Your task to perform on an android device: add a contact in the contacts app Image 0: 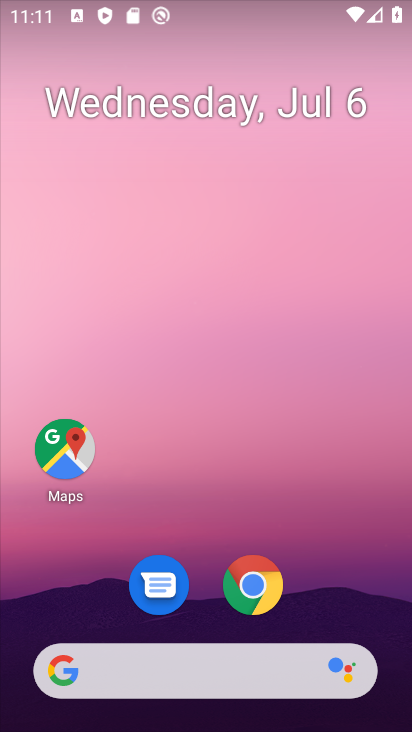
Step 0: drag from (221, 486) to (281, 27)
Your task to perform on an android device: add a contact in the contacts app Image 1: 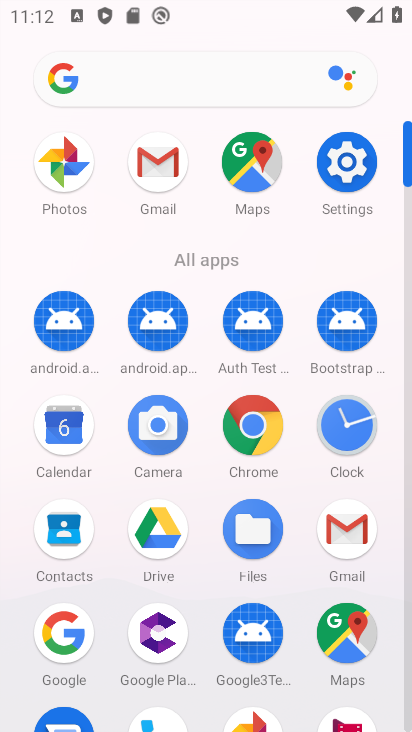
Step 1: click (53, 517)
Your task to perform on an android device: add a contact in the contacts app Image 2: 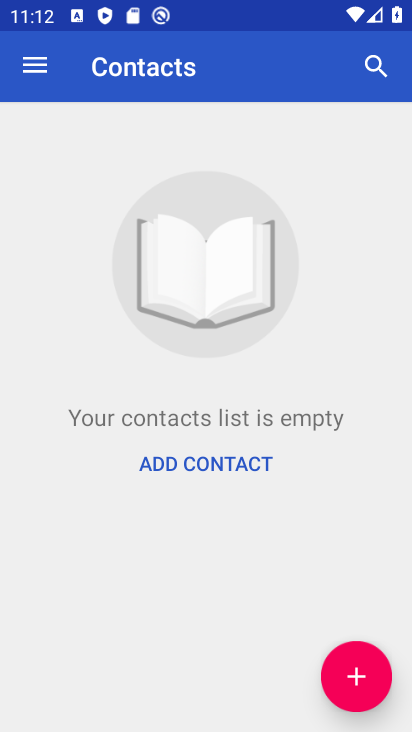
Step 2: click (357, 686)
Your task to perform on an android device: add a contact in the contacts app Image 3: 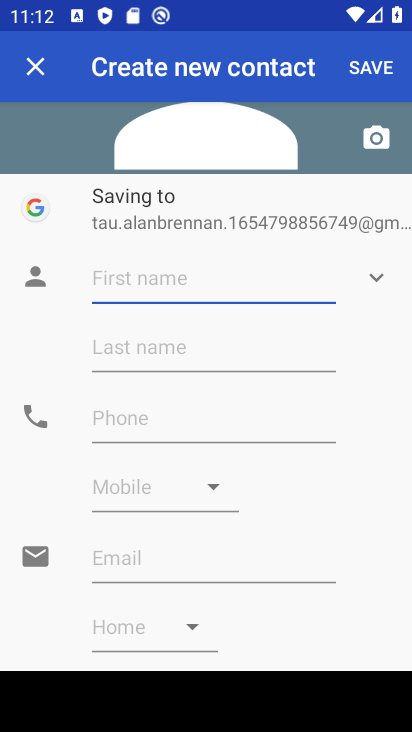
Step 3: type "Shri Ram"
Your task to perform on an android device: add a contact in the contacts app Image 4: 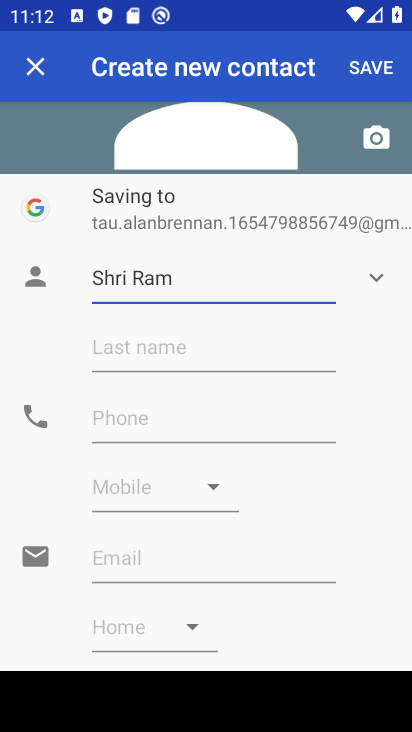
Step 4: click (185, 431)
Your task to perform on an android device: add a contact in the contacts app Image 5: 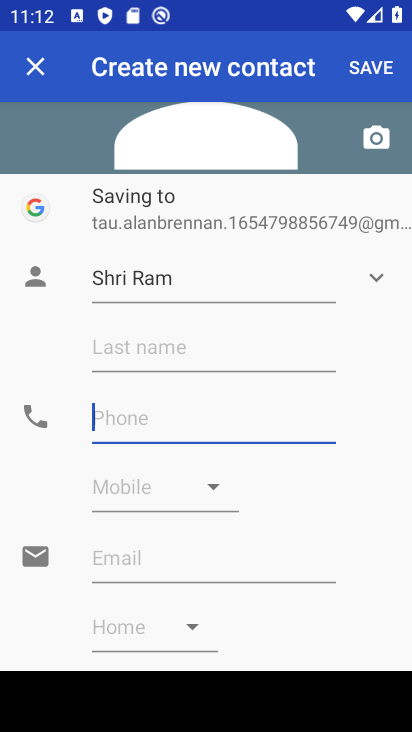
Step 5: type "99999999999"
Your task to perform on an android device: add a contact in the contacts app Image 6: 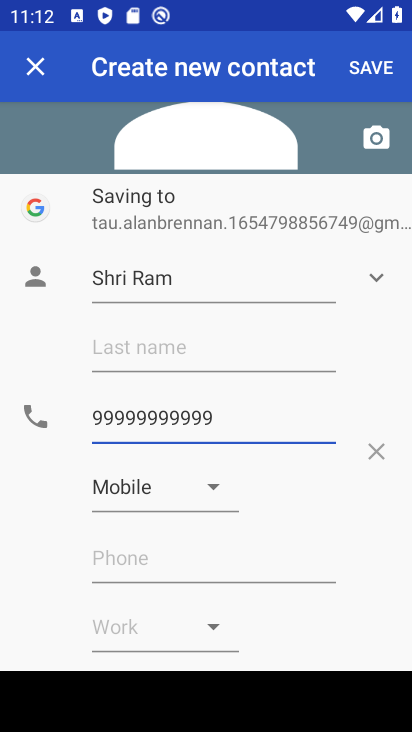
Step 6: click (376, 62)
Your task to perform on an android device: add a contact in the contacts app Image 7: 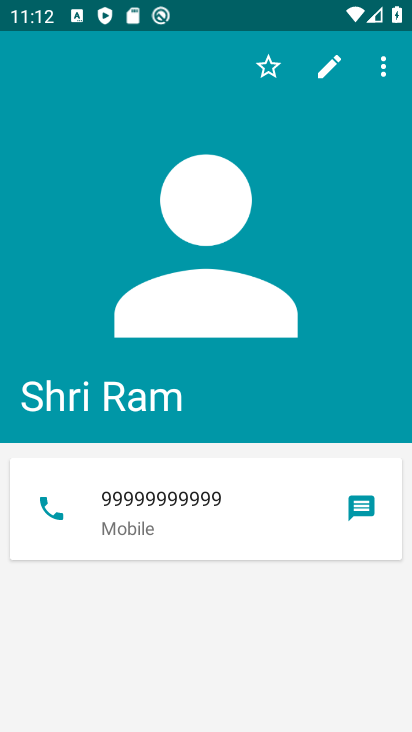
Step 7: task complete